Your task to perform on an android device: turn off airplane mode Image 0: 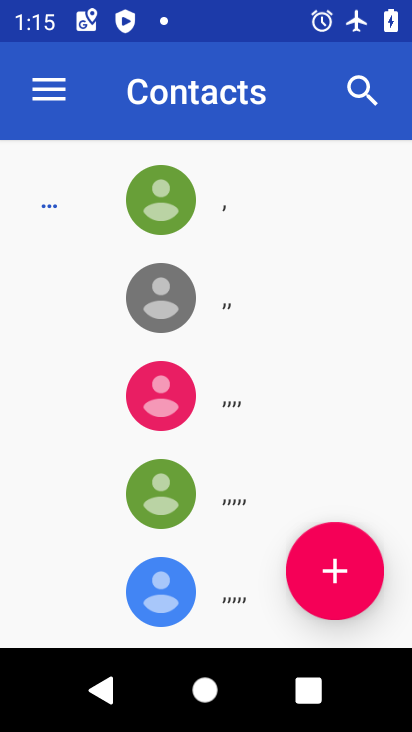
Step 0: press home button
Your task to perform on an android device: turn off airplane mode Image 1: 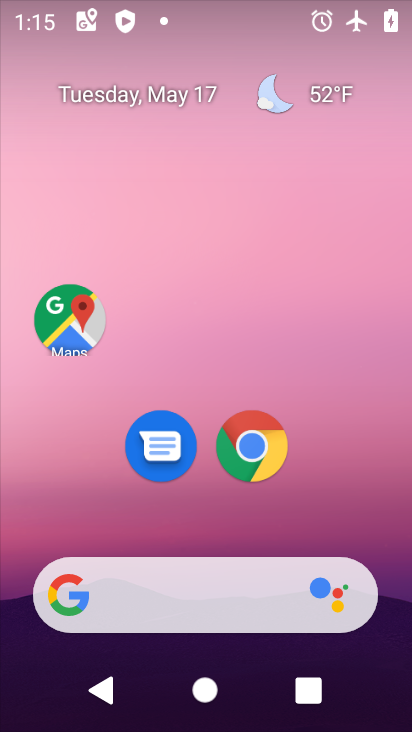
Step 1: drag from (187, 547) to (199, 241)
Your task to perform on an android device: turn off airplane mode Image 2: 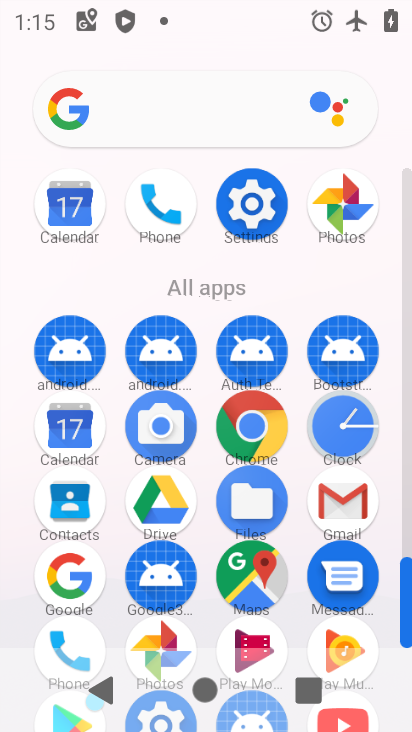
Step 2: click (251, 206)
Your task to perform on an android device: turn off airplane mode Image 3: 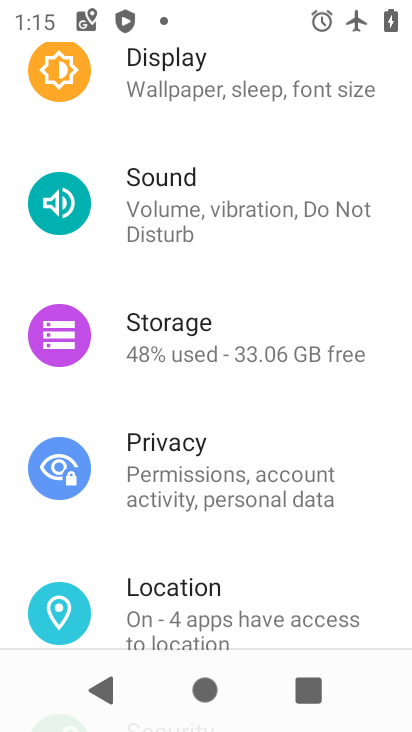
Step 3: drag from (265, 163) to (241, 469)
Your task to perform on an android device: turn off airplane mode Image 4: 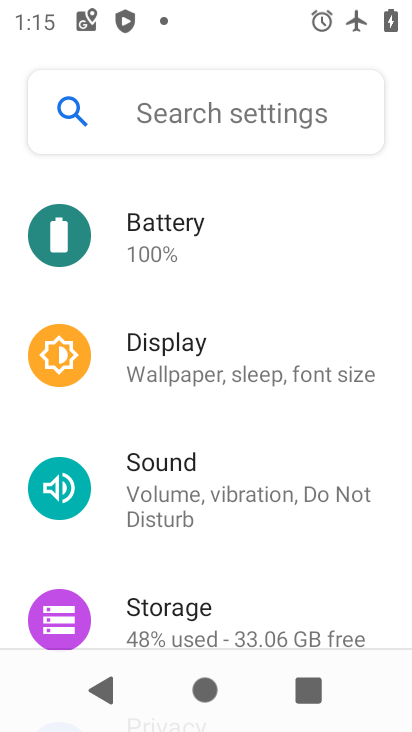
Step 4: drag from (295, 214) to (281, 538)
Your task to perform on an android device: turn off airplane mode Image 5: 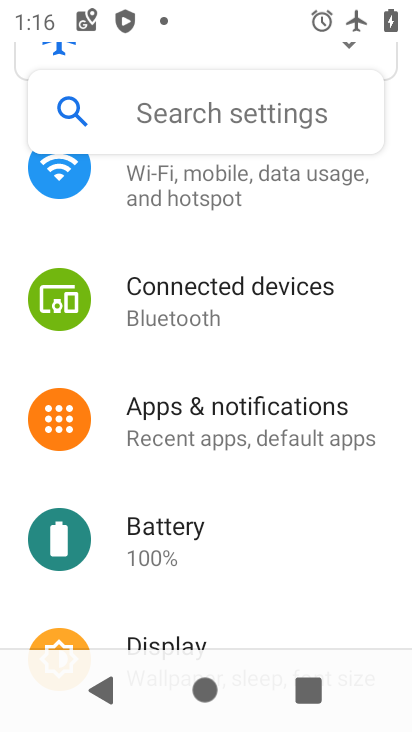
Step 5: drag from (273, 232) to (274, 451)
Your task to perform on an android device: turn off airplane mode Image 6: 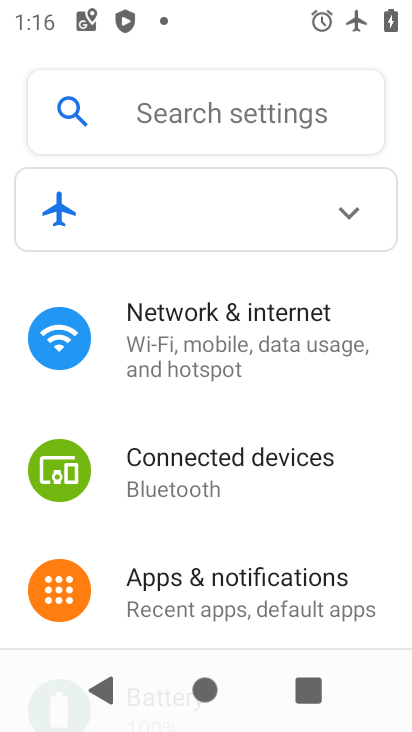
Step 6: click (214, 344)
Your task to perform on an android device: turn off airplane mode Image 7: 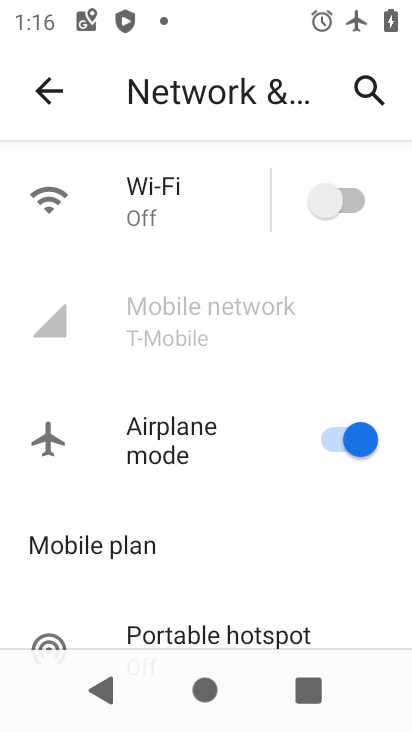
Step 7: click (340, 439)
Your task to perform on an android device: turn off airplane mode Image 8: 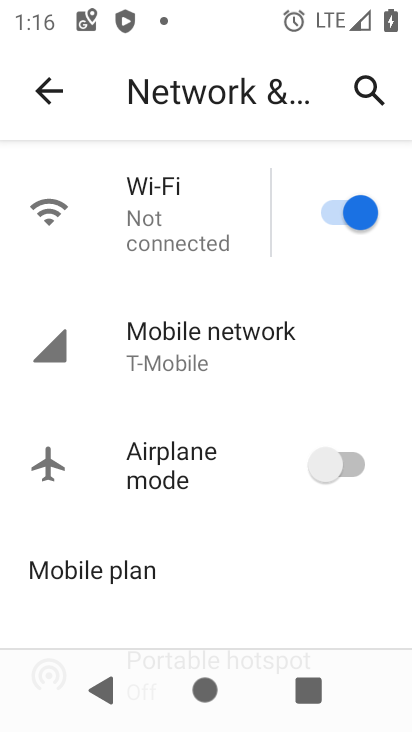
Step 8: task complete